Your task to perform on an android device: Turn on the flashlight Image 0: 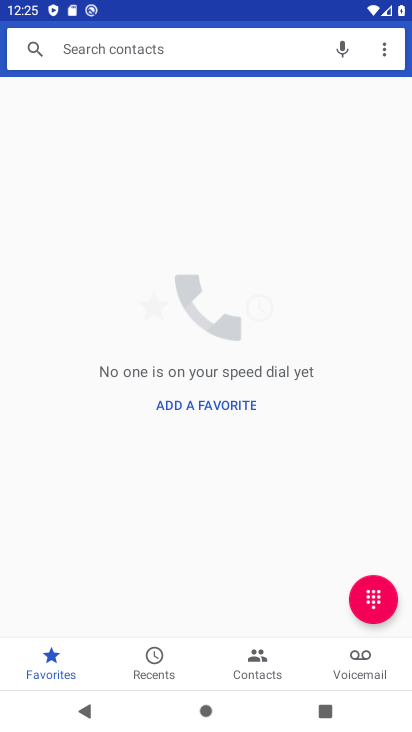
Step 0: press home button
Your task to perform on an android device: Turn on the flashlight Image 1: 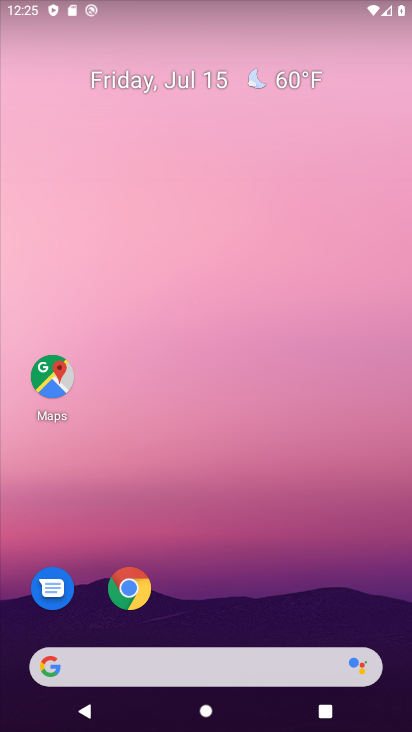
Step 1: drag from (264, 583) to (314, 67)
Your task to perform on an android device: Turn on the flashlight Image 2: 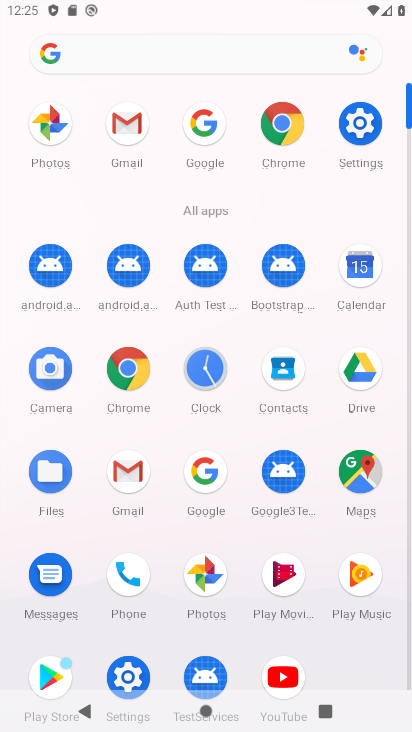
Step 2: click (365, 125)
Your task to perform on an android device: Turn on the flashlight Image 3: 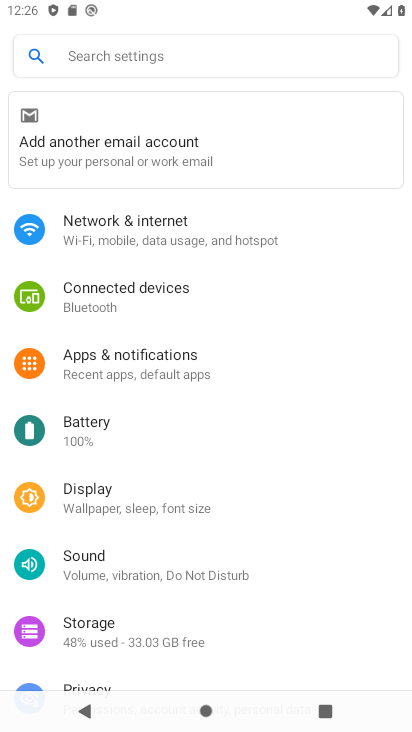
Step 3: task complete